Your task to perform on an android device: Search for Italian restaurants on Maps Image 0: 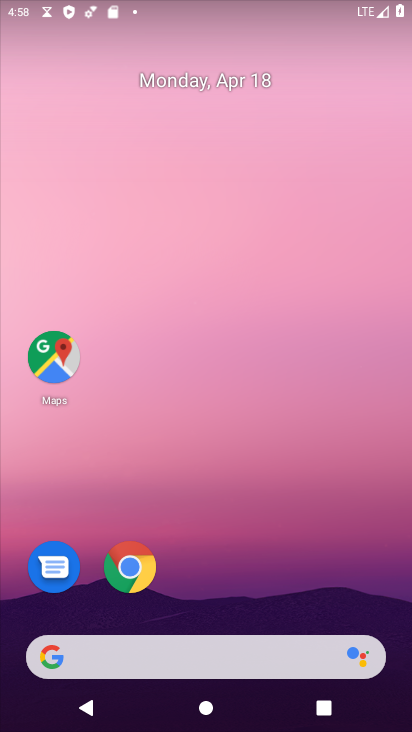
Step 0: drag from (240, 604) to (316, 64)
Your task to perform on an android device: Search for Italian restaurants on Maps Image 1: 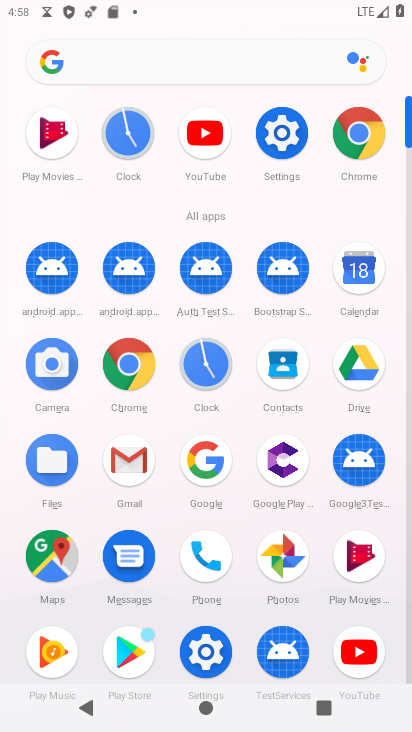
Step 1: click (35, 577)
Your task to perform on an android device: Search for Italian restaurants on Maps Image 2: 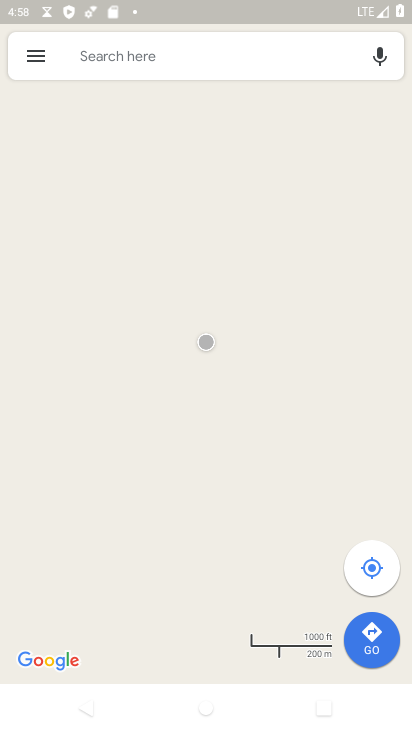
Step 2: click (192, 49)
Your task to perform on an android device: Search for Italian restaurants on Maps Image 3: 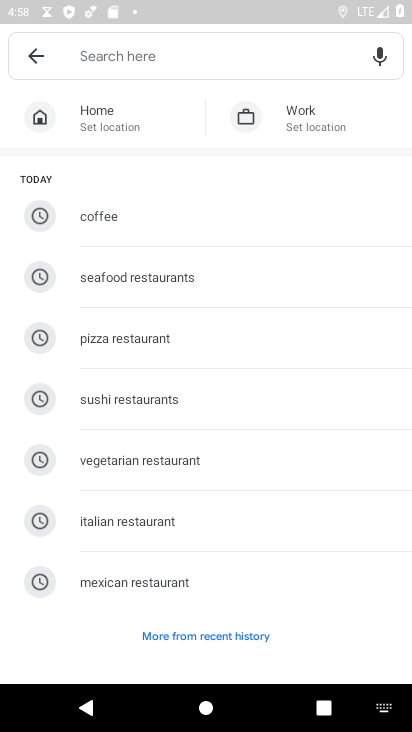
Step 3: type "italian restaurants"
Your task to perform on an android device: Search for Italian restaurants on Maps Image 4: 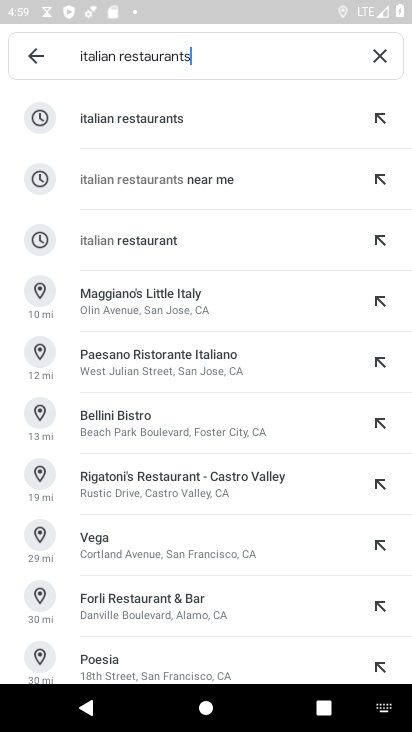
Step 4: click (223, 135)
Your task to perform on an android device: Search for Italian restaurants on Maps Image 5: 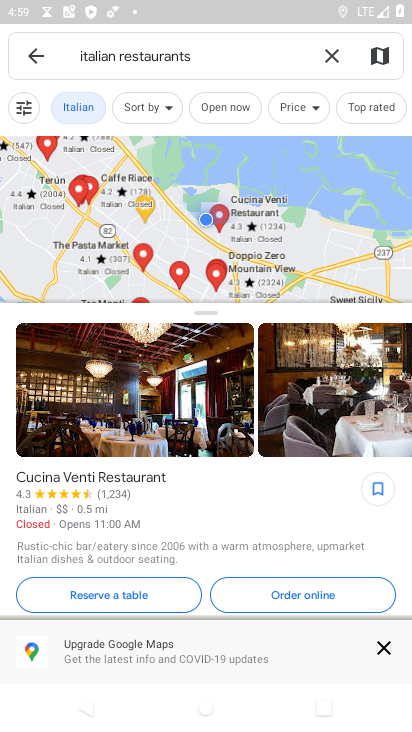
Step 5: task complete